Your task to perform on an android device: Turn off the flashlight Image 0: 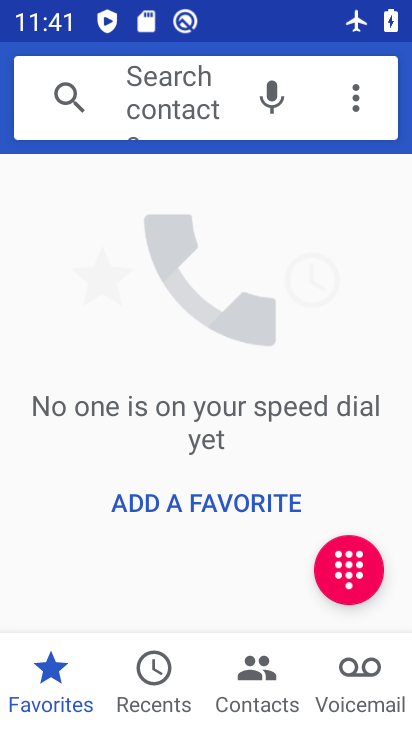
Step 0: press home button
Your task to perform on an android device: Turn off the flashlight Image 1: 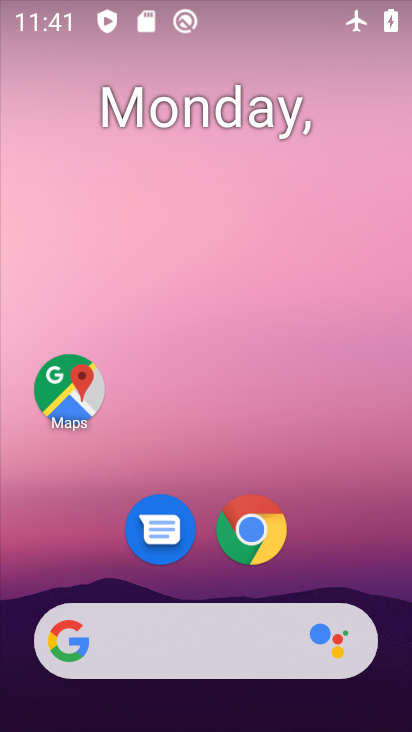
Step 1: drag from (200, 664) to (148, 123)
Your task to perform on an android device: Turn off the flashlight Image 2: 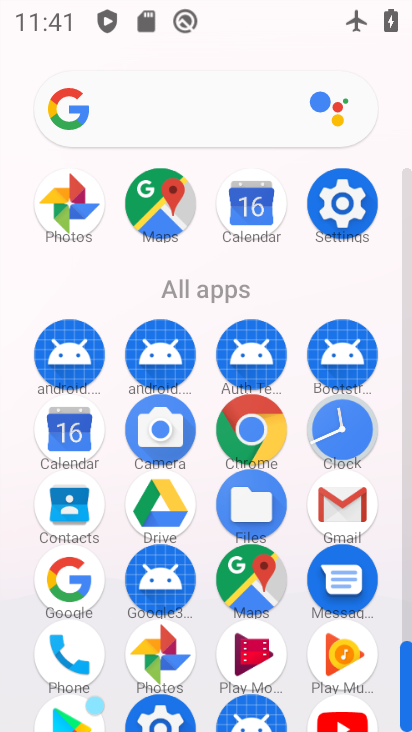
Step 2: click (344, 210)
Your task to perform on an android device: Turn off the flashlight Image 3: 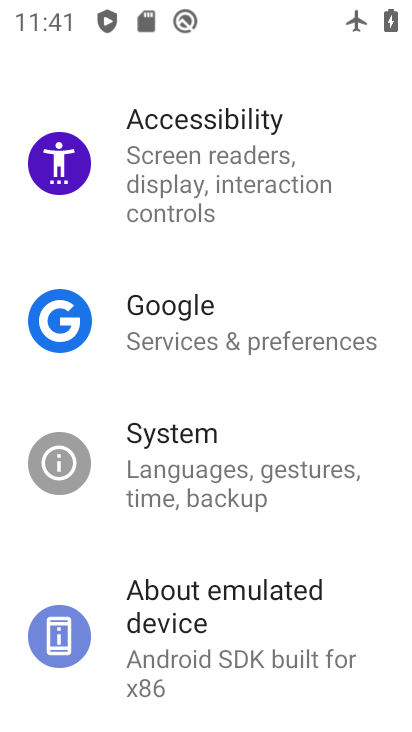
Step 3: task complete